Your task to perform on an android device: open app "Google Docs" (install if not already installed) Image 0: 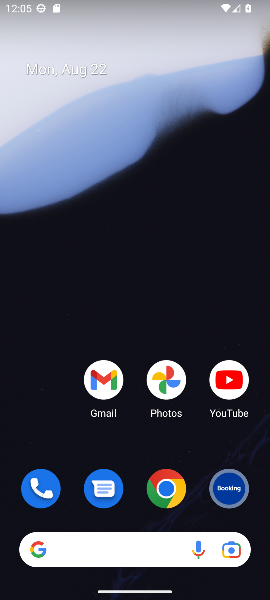
Step 0: drag from (141, 509) to (126, 55)
Your task to perform on an android device: open app "Google Docs" (install if not already installed) Image 1: 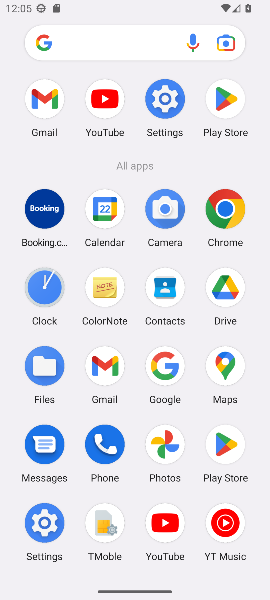
Step 1: click (218, 98)
Your task to perform on an android device: open app "Google Docs" (install if not already installed) Image 2: 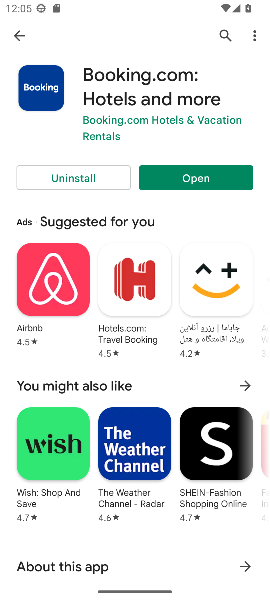
Step 2: click (22, 40)
Your task to perform on an android device: open app "Google Docs" (install if not already installed) Image 3: 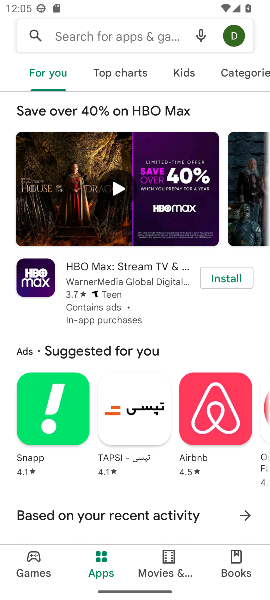
Step 3: click (85, 40)
Your task to perform on an android device: open app "Google Docs" (install if not already installed) Image 4: 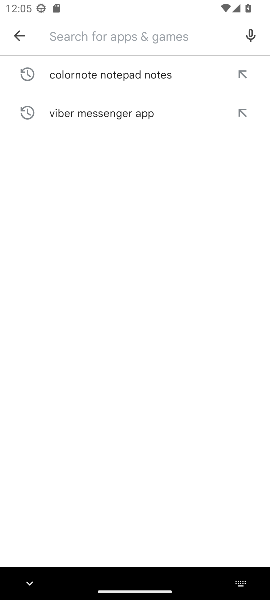
Step 4: type "Google Docs"
Your task to perform on an android device: open app "Google Docs" (install if not already installed) Image 5: 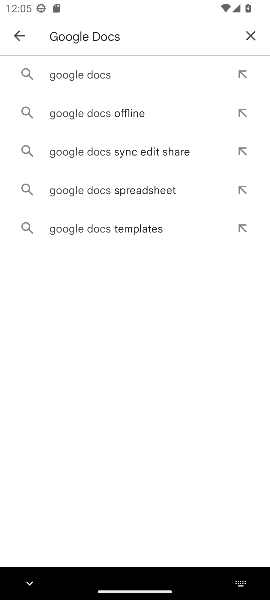
Step 5: click (92, 78)
Your task to perform on an android device: open app "Google Docs" (install if not already installed) Image 6: 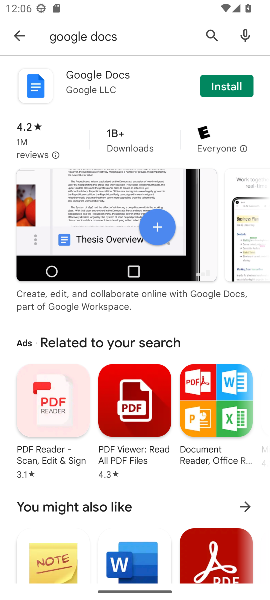
Step 6: click (208, 93)
Your task to perform on an android device: open app "Google Docs" (install if not already installed) Image 7: 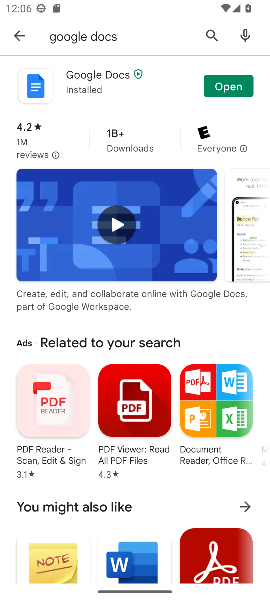
Step 7: click (216, 89)
Your task to perform on an android device: open app "Google Docs" (install if not already installed) Image 8: 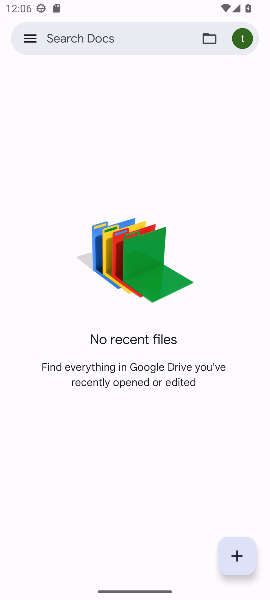
Step 8: task complete